Your task to perform on an android device: Open ESPN.com Image 0: 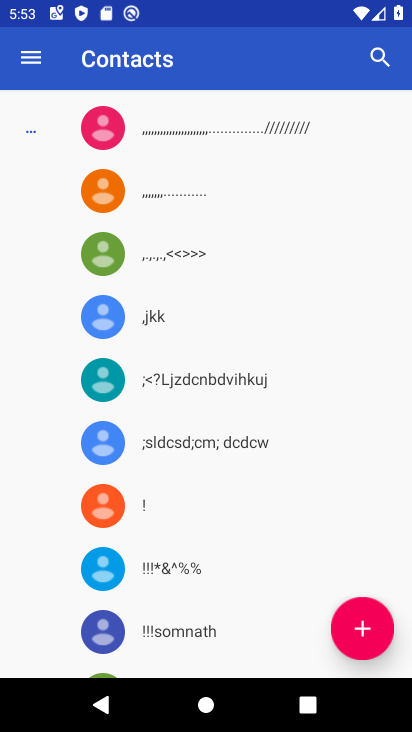
Step 0: press home button
Your task to perform on an android device: Open ESPN.com Image 1: 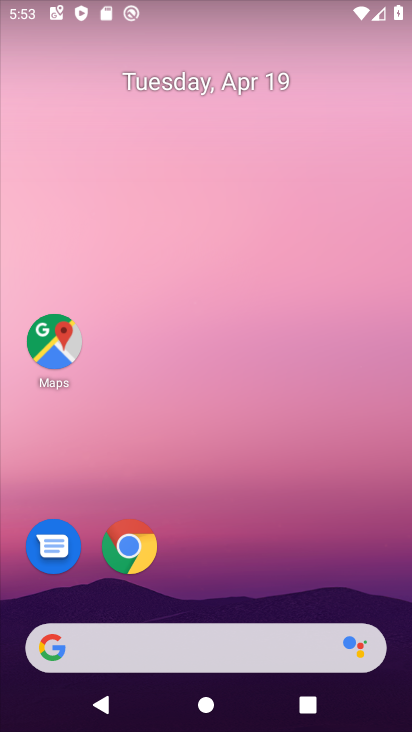
Step 1: drag from (260, 564) to (247, 0)
Your task to perform on an android device: Open ESPN.com Image 2: 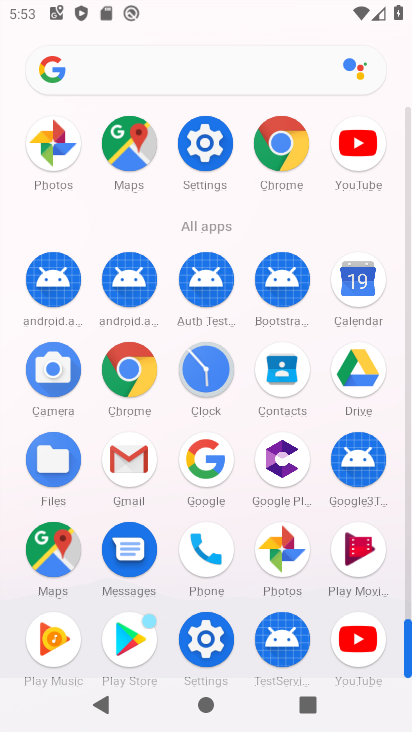
Step 2: click (135, 376)
Your task to perform on an android device: Open ESPN.com Image 3: 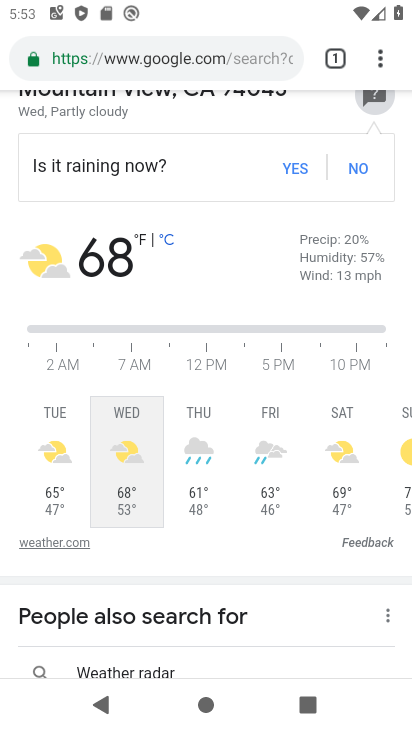
Step 3: click (196, 56)
Your task to perform on an android device: Open ESPN.com Image 4: 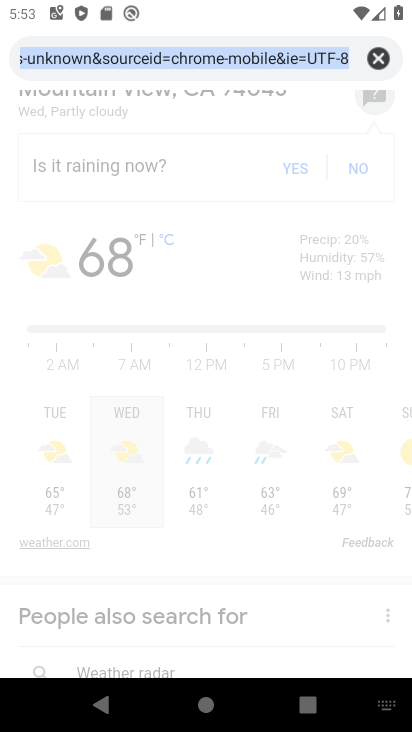
Step 4: type "espn.com"
Your task to perform on an android device: Open ESPN.com Image 5: 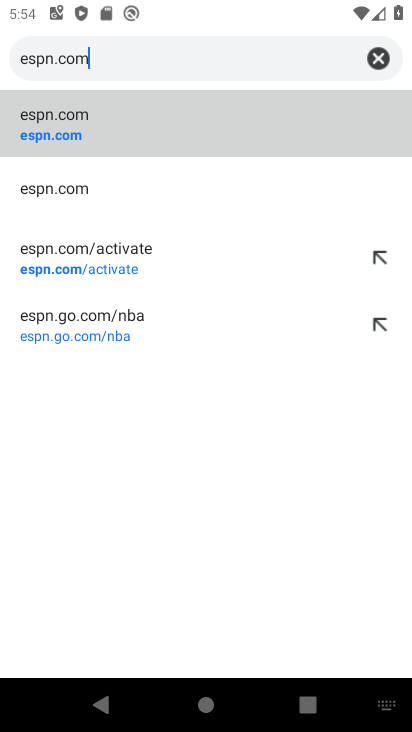
Step 5: click (76, 114)
Your task to perform on an android device: Open ESPN.com Image 6: 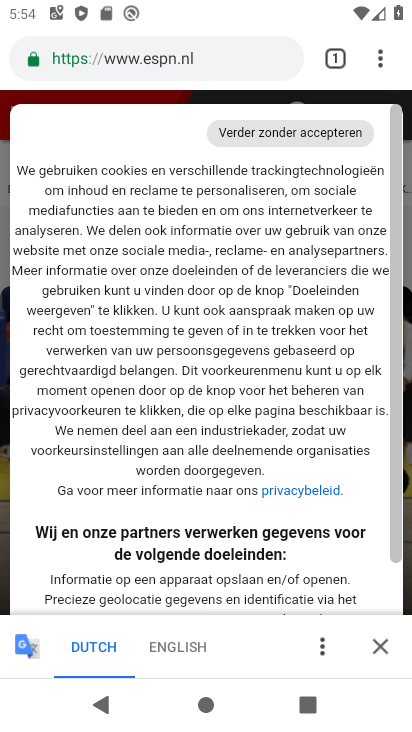
Step 6: task complete